Your task to perform on an android device: Open the calendar app, open the side menu, and click the "Day" option Image 0: 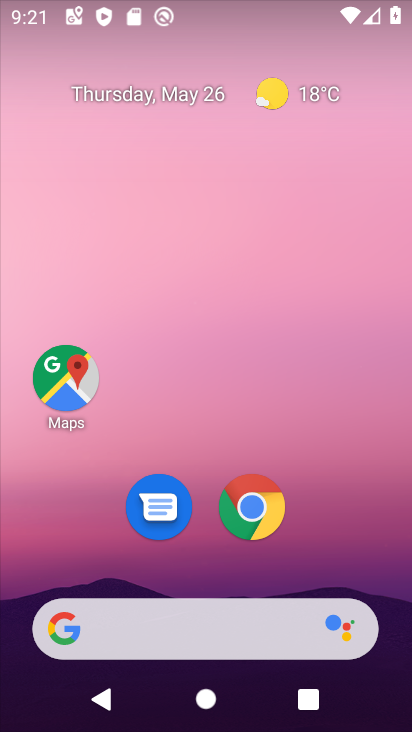
Step 0: press home button
Your task to perform on an android device: Open the calendar app, open the side menu, and click the "Day" option Image 1: 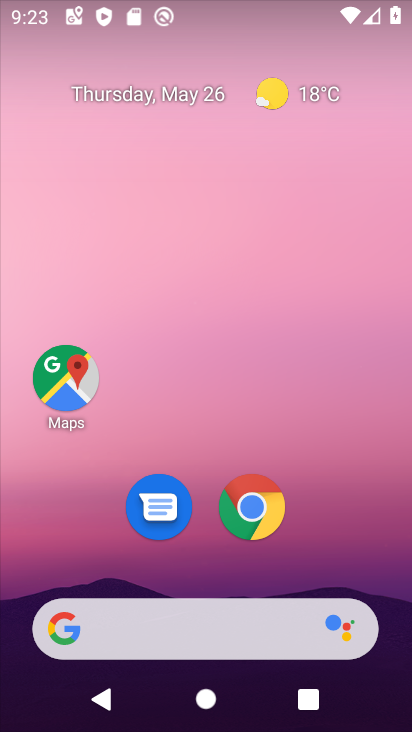
Step 1: drag from (276, 643) to (205, 222)
Your task to perform on an android device: Open the calendar app, open the side menu, and click the "Day" option Image 2: 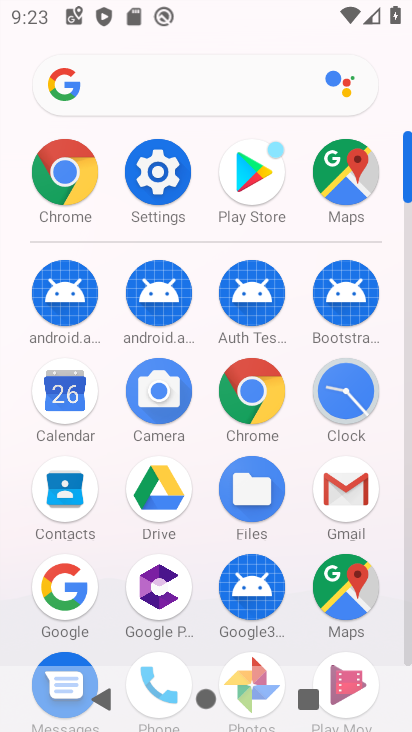
Step 2: click (85, 384)
Your task to perform on an android device: Open the calendar app, open the side menu, and click the "Day" option Image 3: 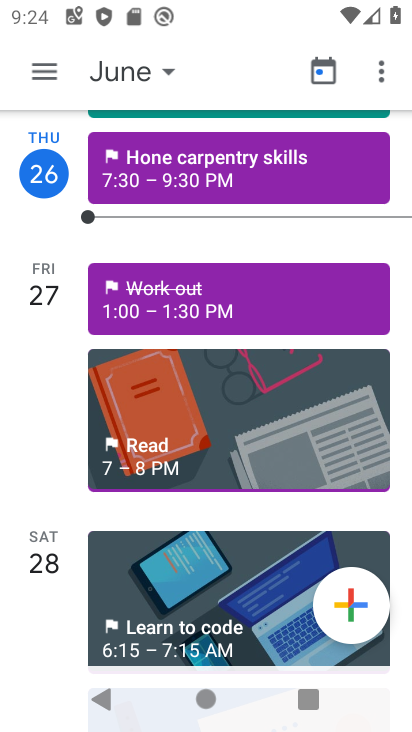
Step 3: click (31, 81)
Your task to perform on an android device: Open the calendar app, open the side menu, and click the "Day" option Image 4: 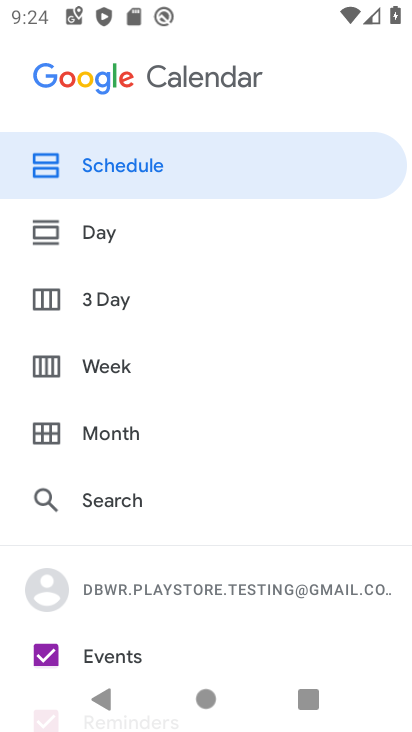
Step 4: click (116, 225)
Your task to perform on an android device: Open the calendar app, open the side menu, and click the "Day" option Image 5: 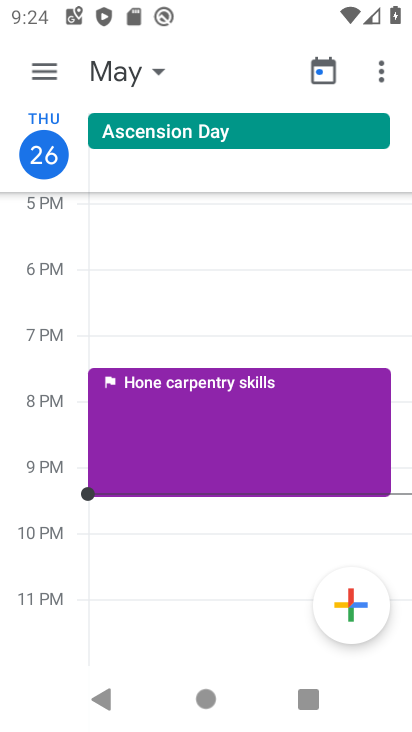
Step 5: task complete